Your task to perform on an android device: Open Youtube and go to the subscriptions tab Image 0: 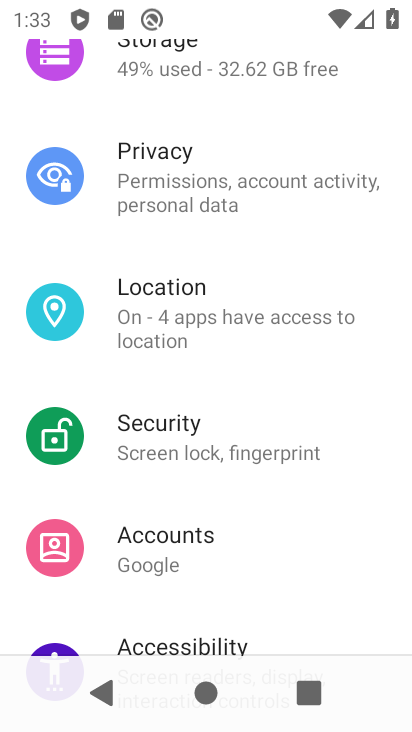
Step 0: press home button
Your task to perform on an android device: Open Youtube and go to the subscriptions tab Image 1: 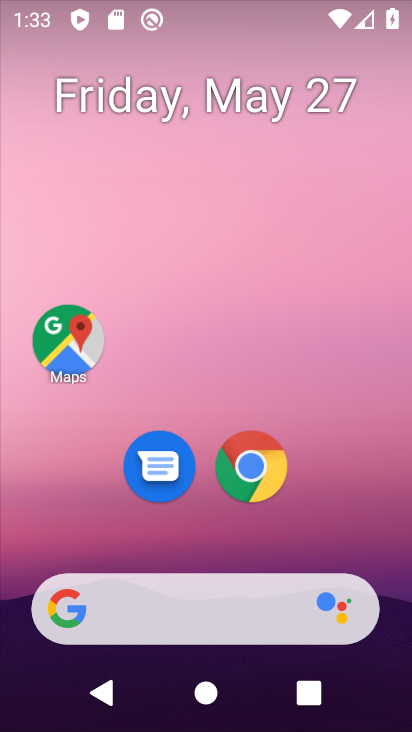
Step 1: drag from (221, 564) to (169, 174)
Your task to perform on an android device: Open Youtube and go to the subscriptions tab Image 2: 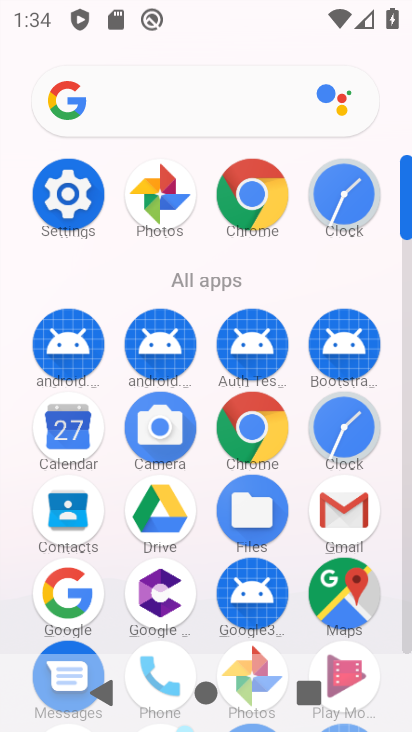
Step 2: drag from (189, 292) to (161, 136)
Your task to perform on an android device: Open Youtube and go to the subscriptions tab Image 3: 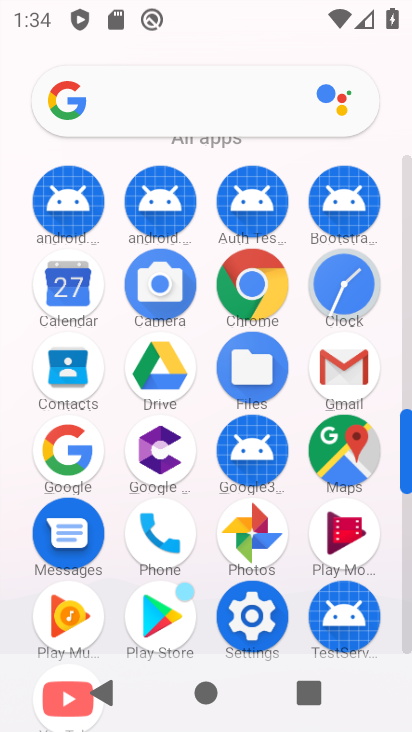
Step 3: drag from (115, 585) to (113, 449)
Your task to perform on an android device: Open Youtube and go to the subscriptions tab Image 4: 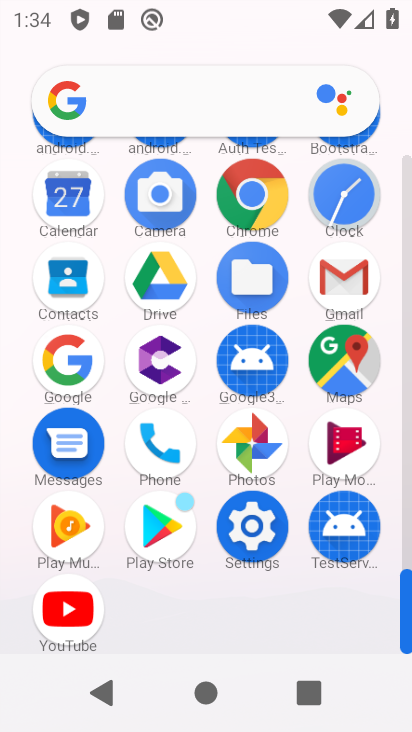
Step 4: click (88, 627)
Your task to perform on an android device: Open Youtube and go to the subscriptions tab Image 5: 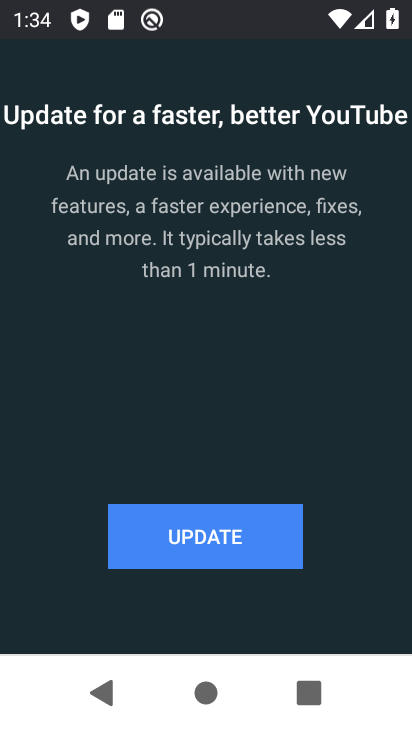
Step 5: drag from (208, 522) to (134, 522)
Your task to perform on an android device: Open Youtube and go to the subscriptions tab Image 6: 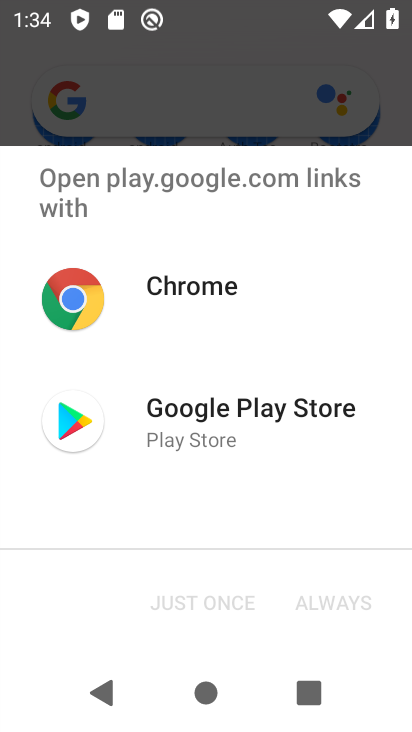
Step 6: click (169, 399)
Your task to perform on an android device: Open Youtube and go to the subscriptions tab Image 7: 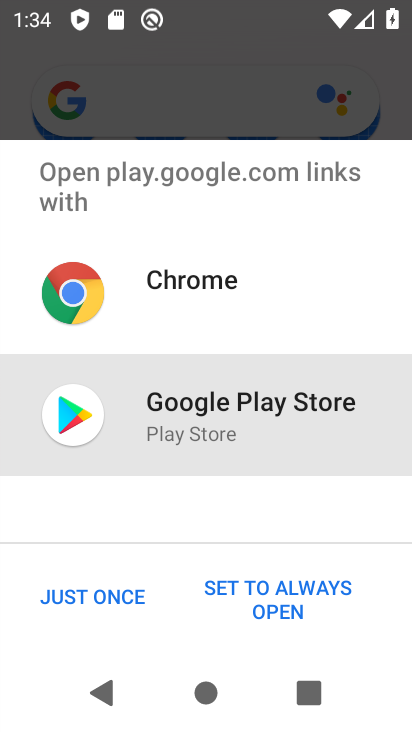
Step 7: click (122, 579)
Your task to perform on an android device: Open Youtube and go to the subscriptions tab Image 8: 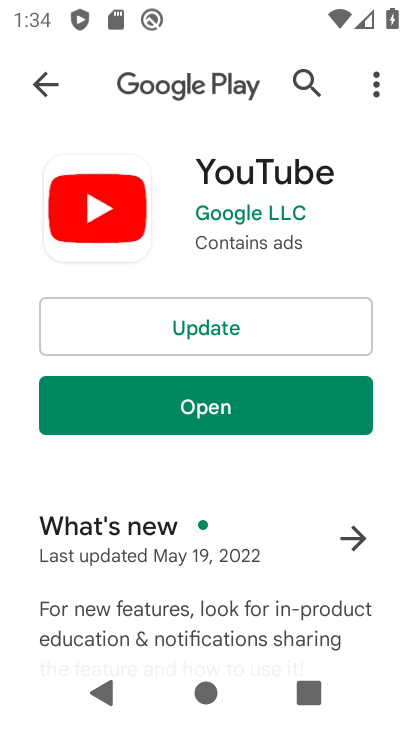
Step 8: click (123, 338)
Your task to perform on an android device: Open Youtube and go to the subscriptions tab Image 9: 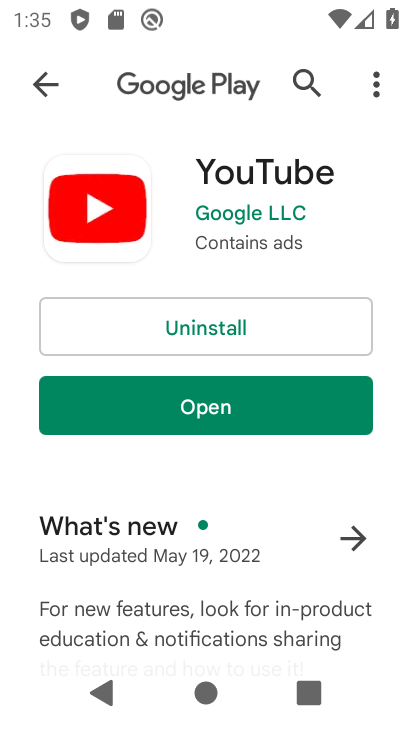
Step 9: click (102, 409)
Your task to perform on an android device: Open Youtube and go to the subscriptions tab Image 10: 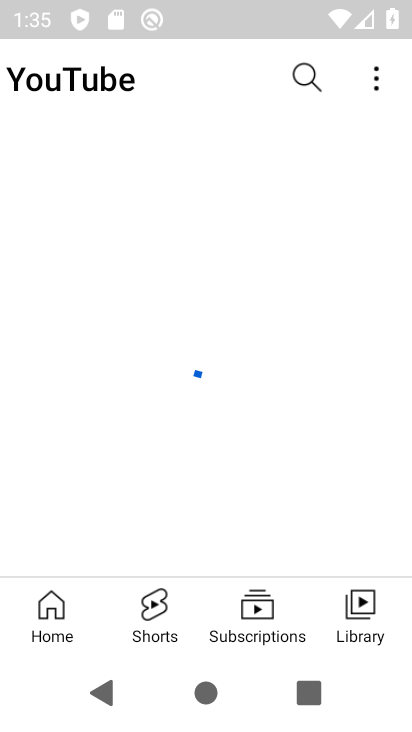
Step 10: click (269, 626)
Your task to perform on an android device: Open Youtube and go to the subscriptions tab Image 11: 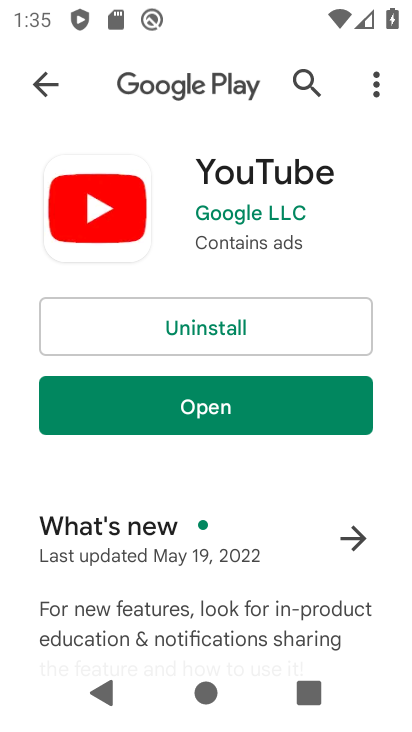
Step 11: task complete